Your task to perform on an android device: Go to wifi settings Image 0: 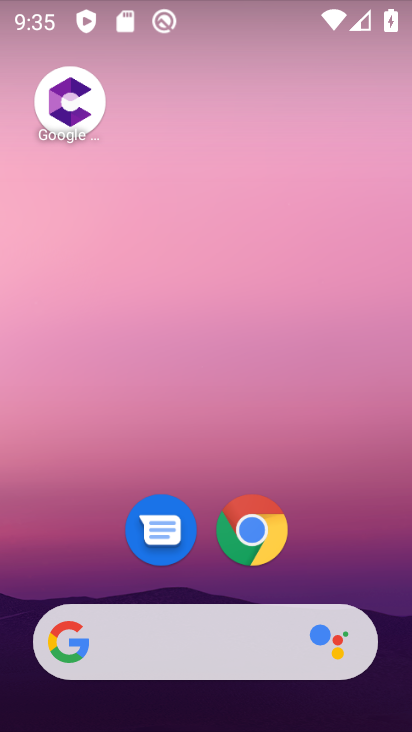
Step 0: drag from (349, 545) to (260, 59)
Your task to perform on an android device: Go to wifi settings Image 1: 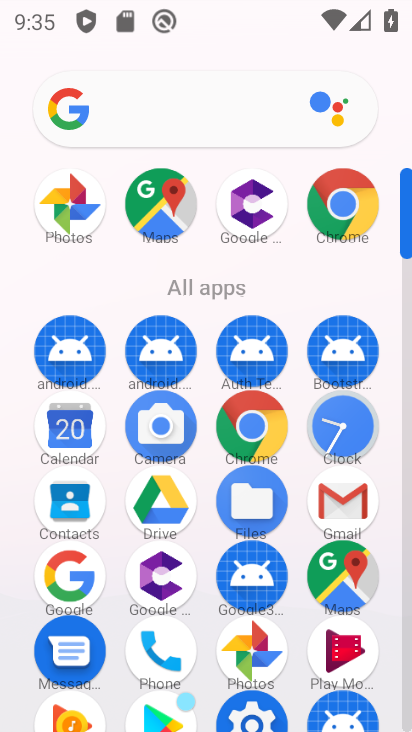
Step 1: click (246, 706)
Your task to perform on an android device: Go to wifi settings Image 2: 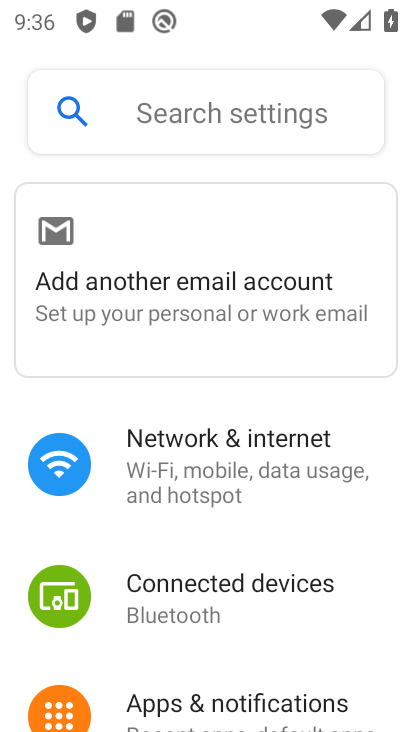
Step 2: click (270, 464)
Your task to perform on an android device: Go to wifi settings Image 3: 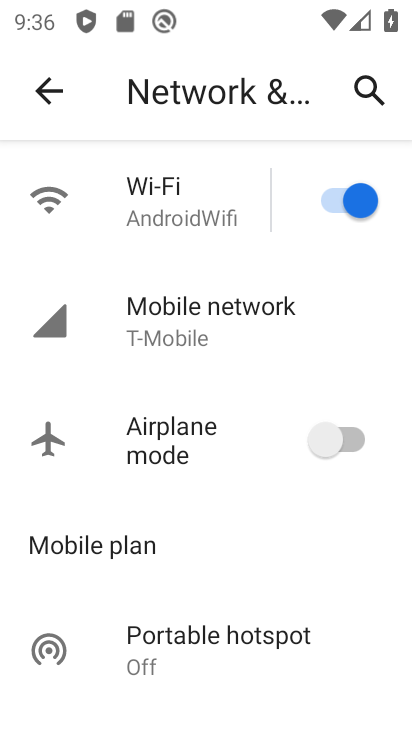
Step 3: click (176, 203)
Your task to perform on an android device: Go to wifi settings Image 4: 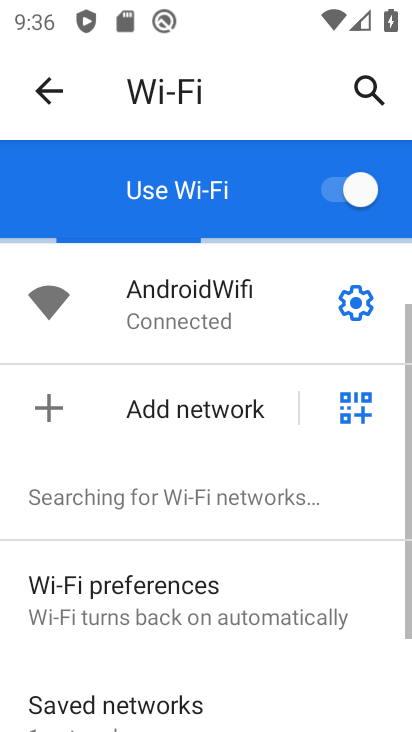
Step 4: task complete